Your task to perform on an android device: Open ESPN.com Image 0: 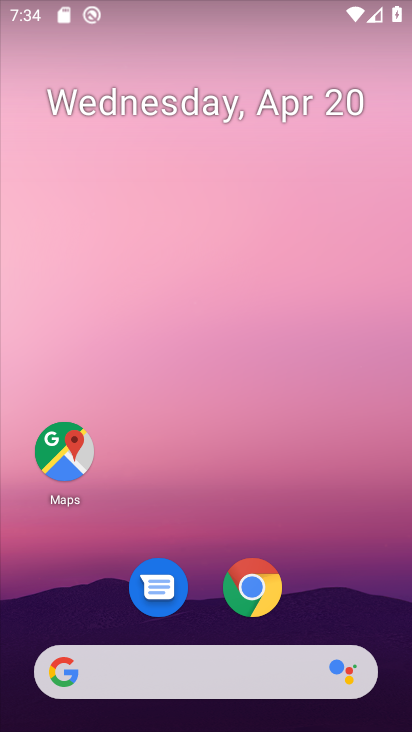
Step 0: drag from (335, 587) to (257, 75)
Your task to perform on an android device: Open ESPN.com Image 1: 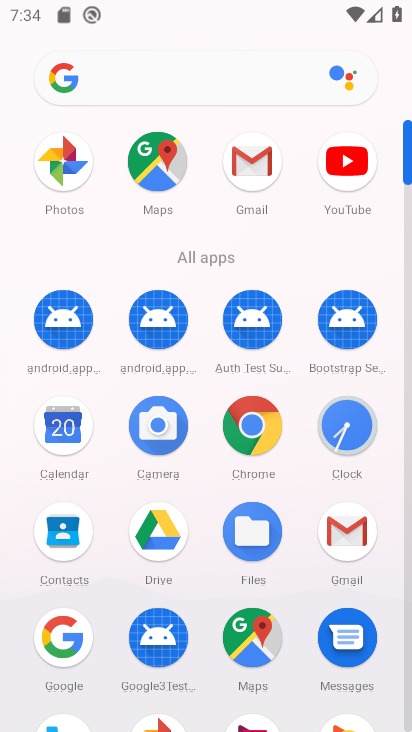
Step 1: click (270, 444)
Your task to perform on an android device: Open ESPN.com Image 2: 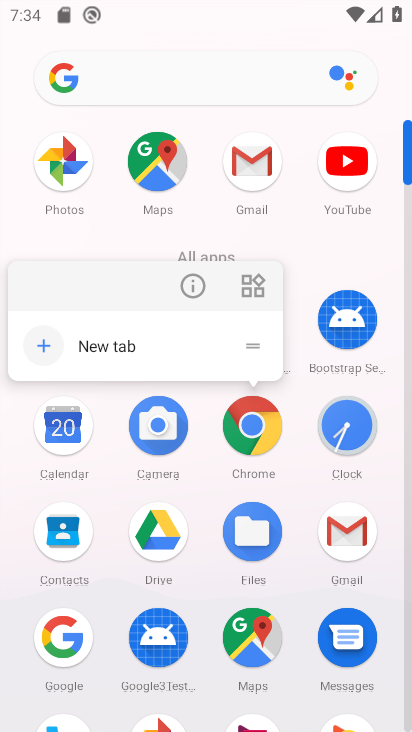
Step 2: click (261, 443)
Your task to perform on an android device: Open ESPN.com Image 3: 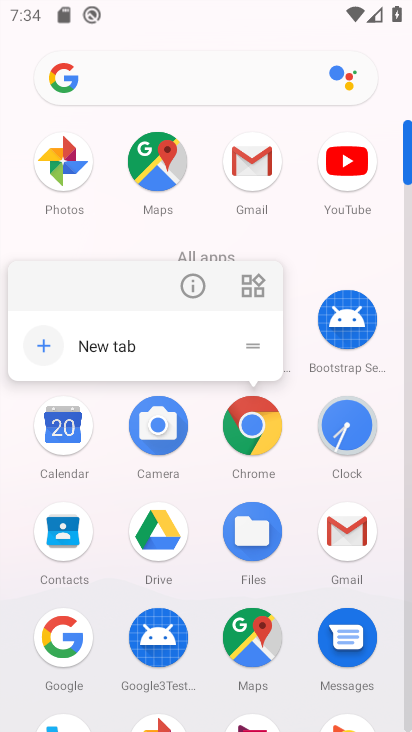
Step 3: click (247, 443)
Your task to perform on an android device: Open ESPN.com Image 4: 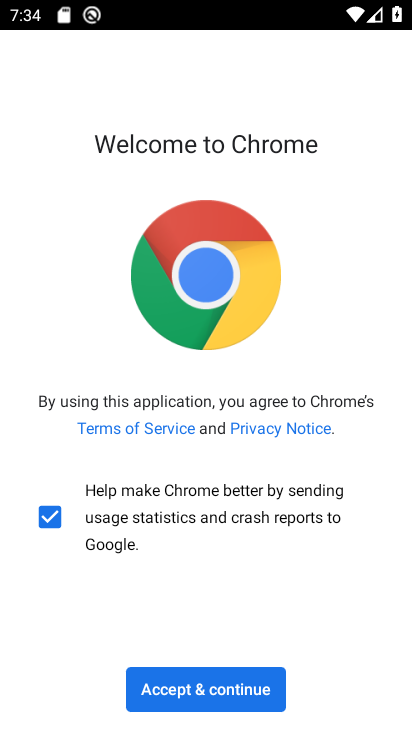
Step 4: click (218, 691)
Your task to perform on an android device: Open ESPN.com Image 5: 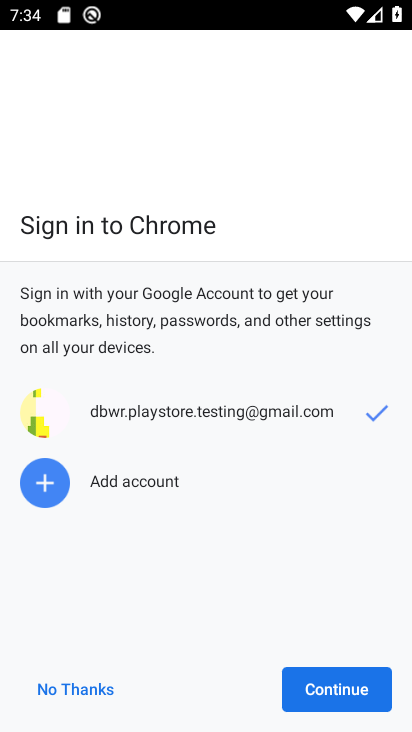
Step 5: click (289, 687)
Your task to perform on an android device: Open ESPN.com Image 6: 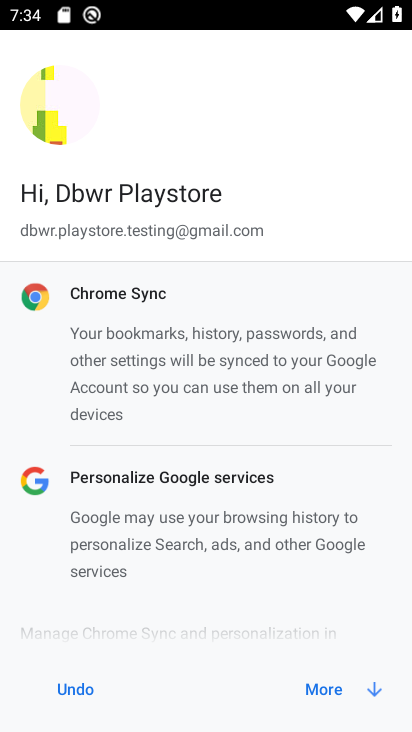
Step 6: click (332, 687)
Your task to perform on an android device: Open ESPN.com Image 7: 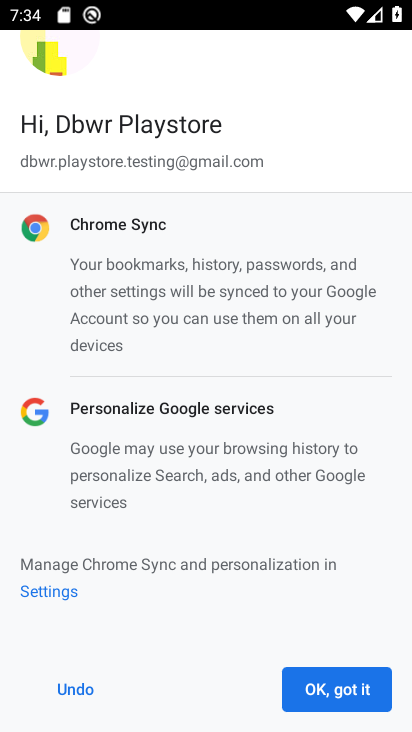
Step 7: click (332, 687)
Your task to perform on an android device: Open ESPN.com Image 8: 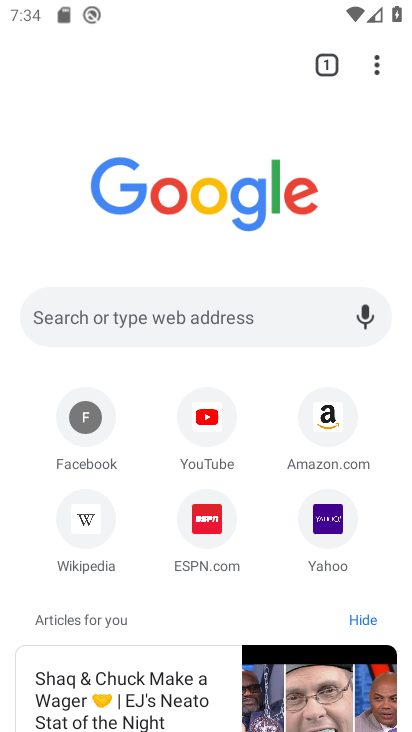
Step 8: click (197, 552)
Your task to perform on an android device: Open ESPN.com Image 9: 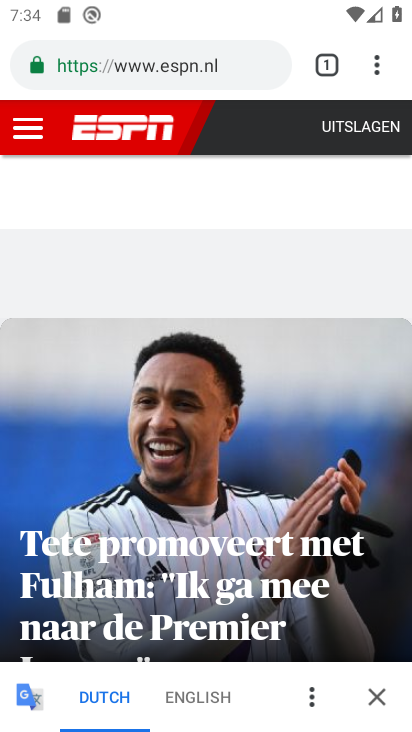
Step 9: task complete